Your task to perform on an android device: make emails show in primary in the gmail app Image 0: 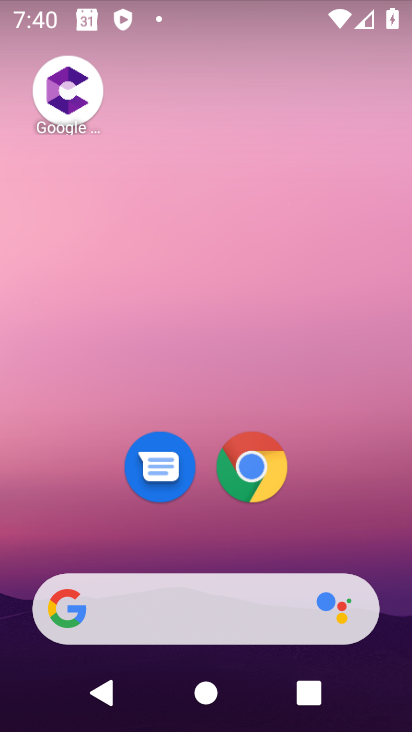
Step 0: drag from (348, 554) to (340, 19)
Your task to perform on an android device: make emails show in primary in the gmail app Image 1: 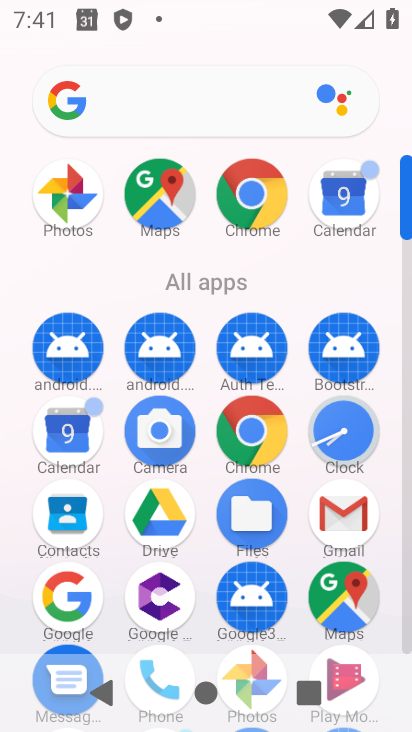
Step 1: click (347, 519)
Your task to perform on an android device: make emails show in primary in the gmail app Image 2: 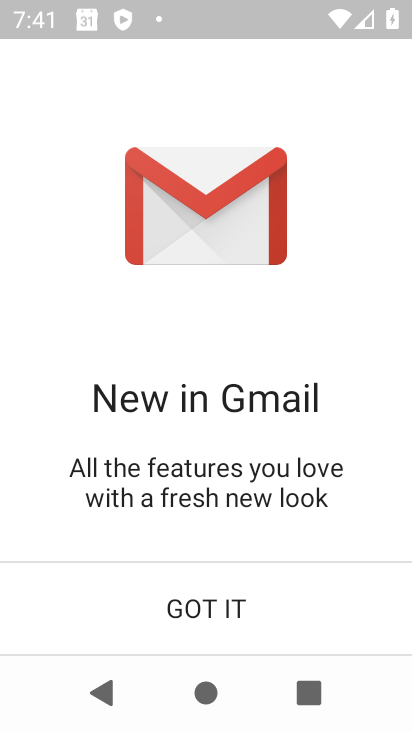
Step 2: click (219, 613)
Your task to perform on an android device: make emails show in primary in the gmail app Image 3: 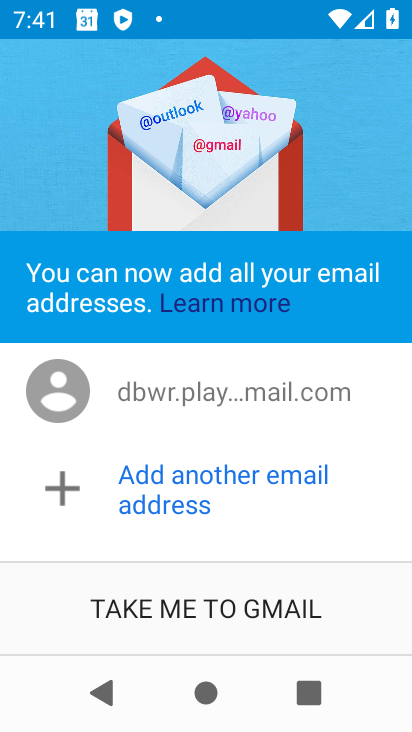
Step 3: click (219, 613)
Your task to perform on an android device: make emails show in primary in the gmail app Image 4: 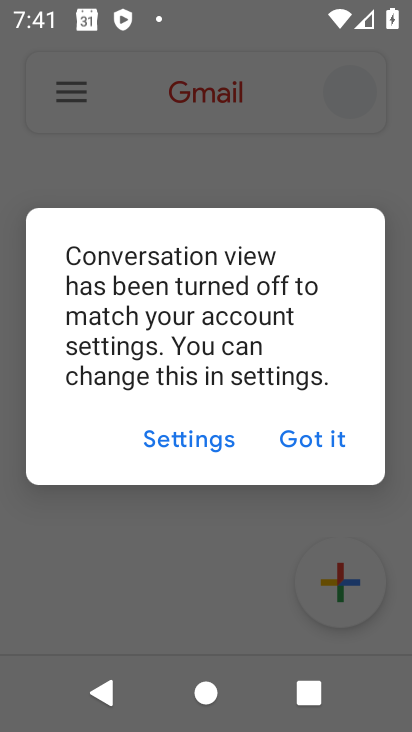
Step 4: click (314, 429)
Your task to perform on an android device: make emails show in primary in the gmail app Image 5: 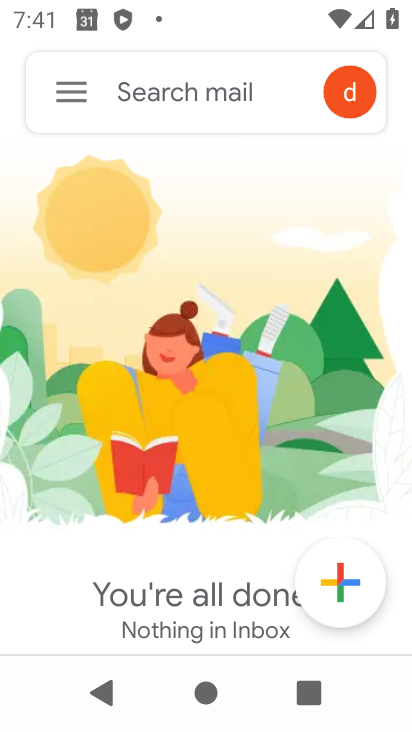
Step 5: click (68, 97)
Your task to perform on an android device: make emails show in primary in the gmail app Image 6: 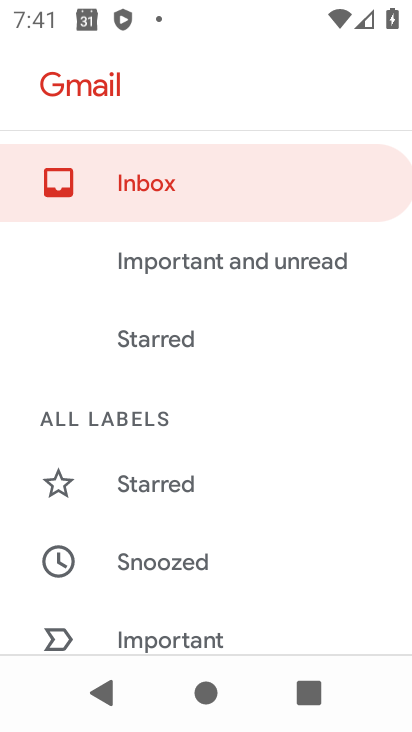
Step 6: drag from (251, 561) to (223, 149)
Your task to perform on an android device: make emails show in primary in the gmail app Image 7: 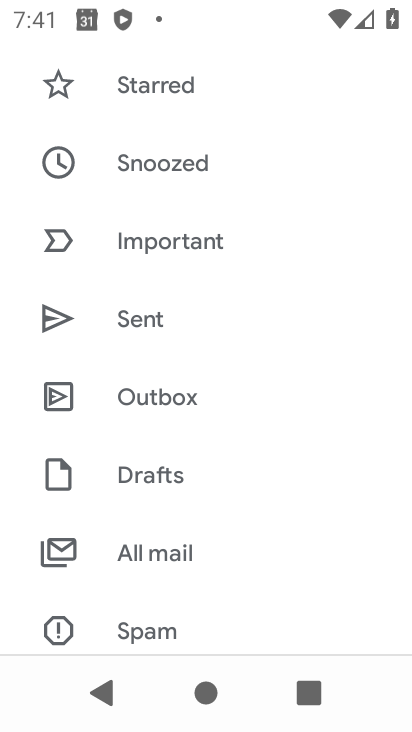
Step 7: drag from (184, 563) to (206, 201)
Your task to perform on an android device: make emails show in primary in the gmail app Image 8: 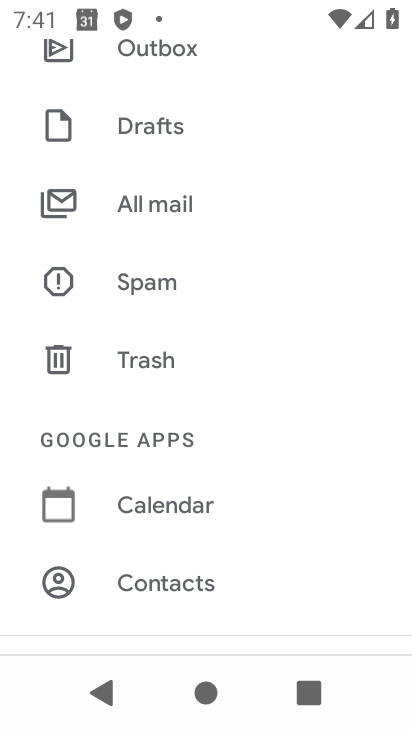
Step 8: drag from (249, 596) to (257, 157)
Your task to perform on an android device: make emails show in primary in the gmail app Image 9: 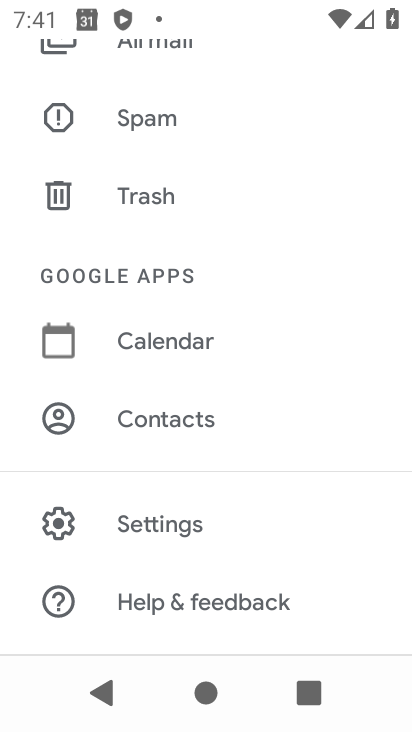
Step 9: click (181, 535)
Your task to perform on an android device: make emails show in primary in the gmail app Image 10: 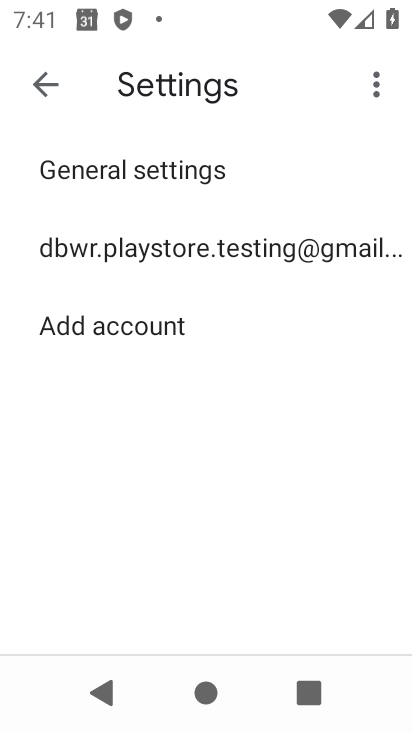
Step 10: click (140, 257)
Your task to perform on an android device: make emails show in primary in the gmail app Image 11: 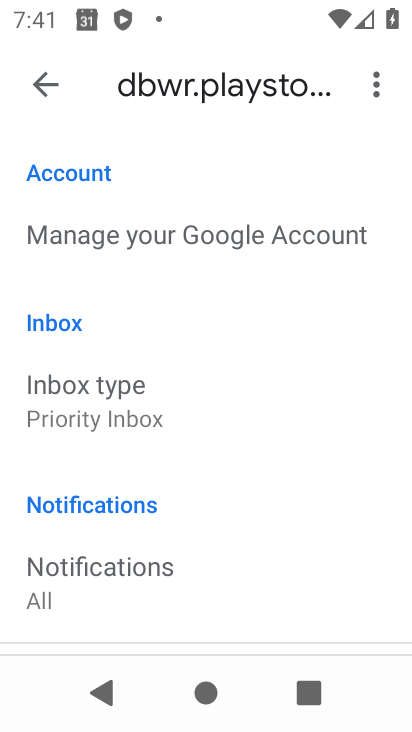
Step 11: task complete